Your task to perform on an android device: open chrome privacy settings Image 0: 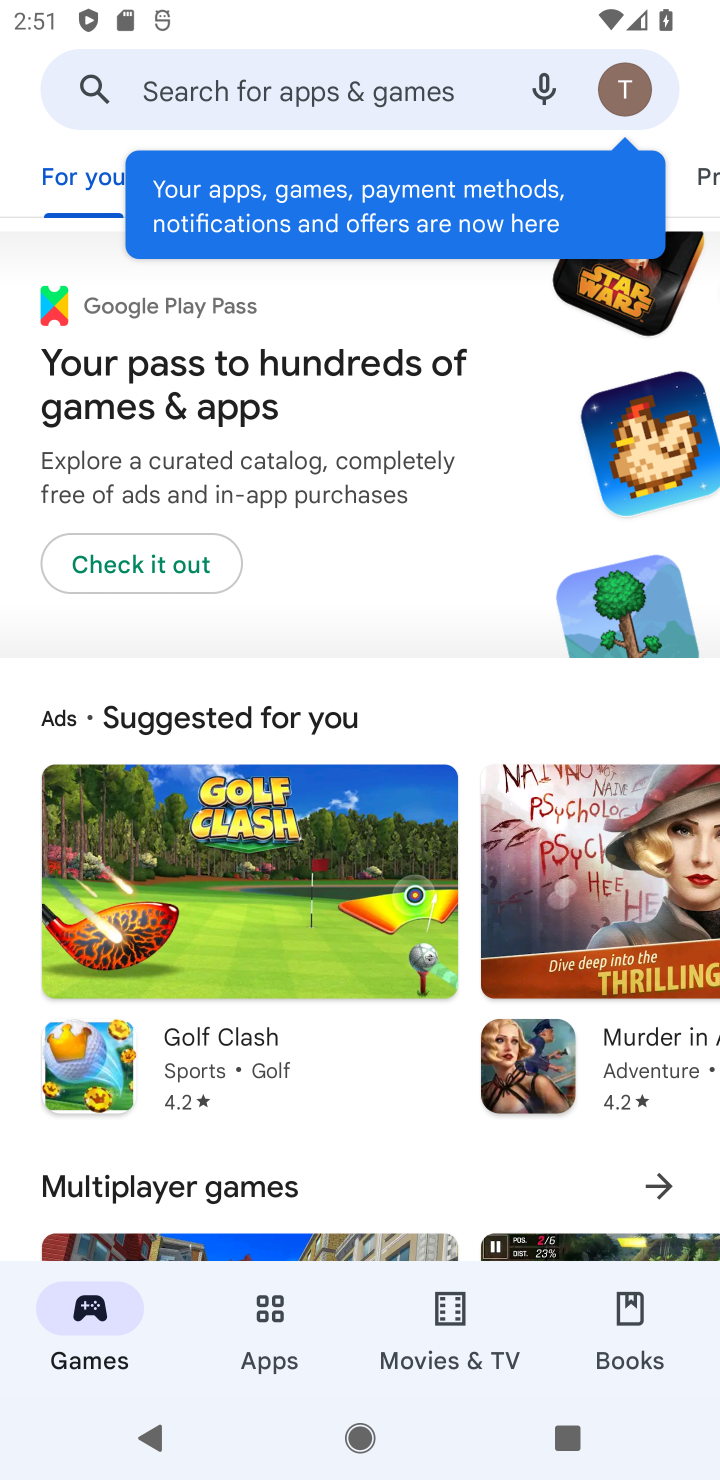
Step 0: press home button
Your task to perform on an android device: open chrome privacy settings Image 1: 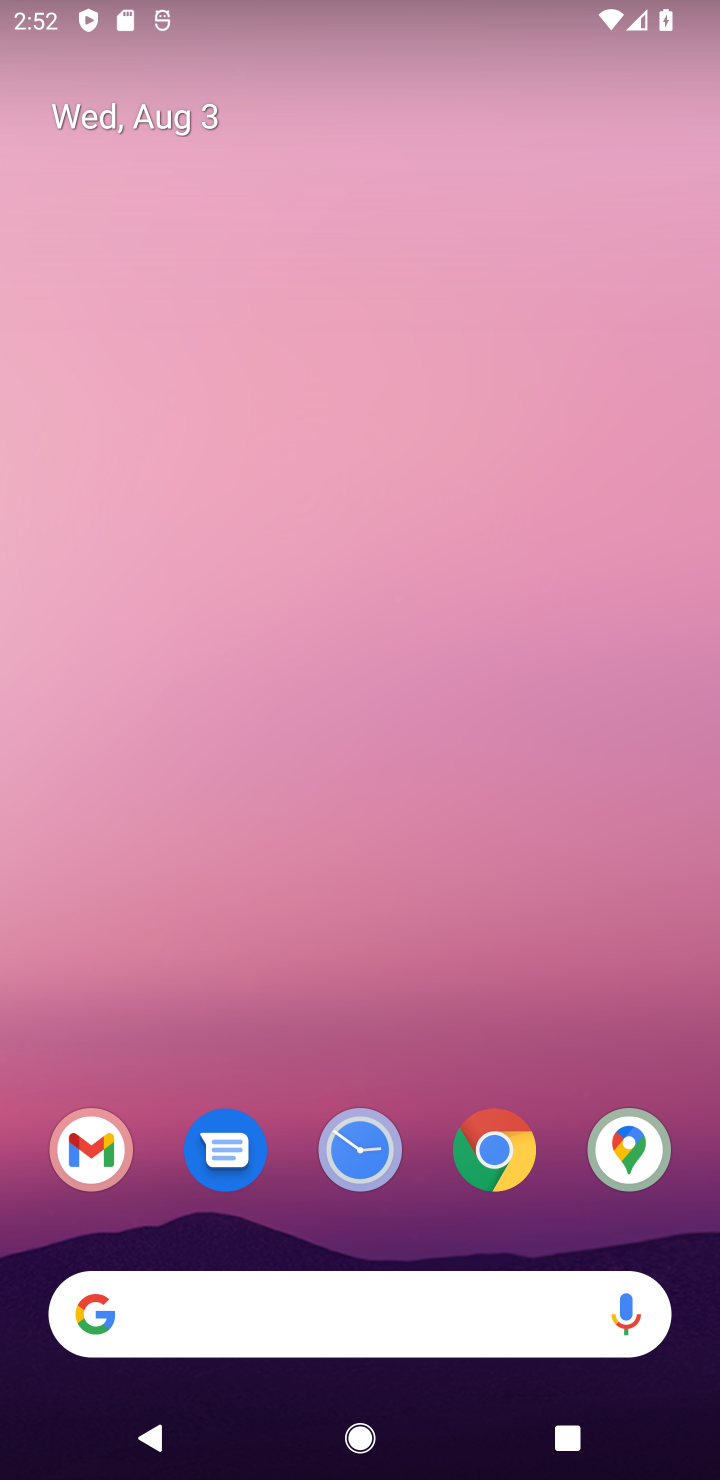
Step 1: click (505, 1148)
Your task to perform on an android device: open chrome privacy settings Image 2: 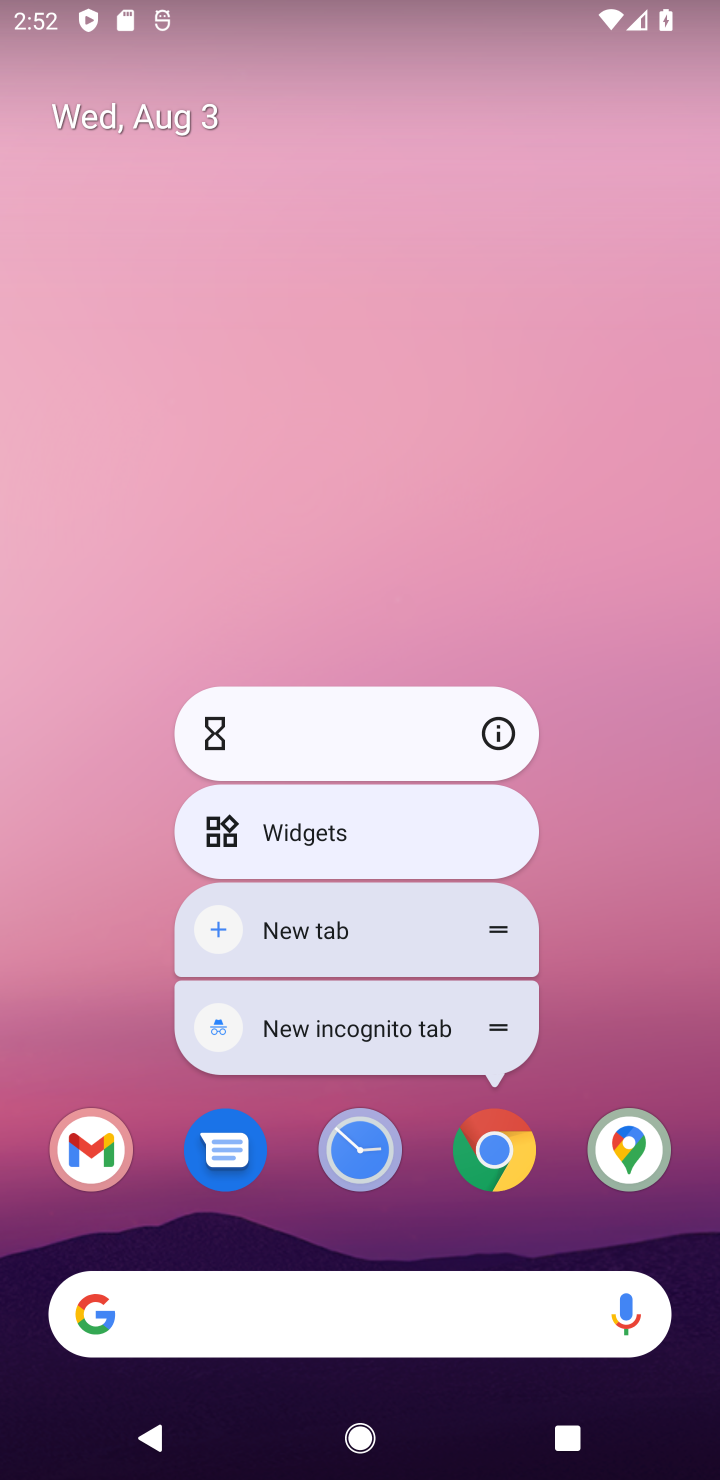
Step 2: click (504, 1155)
Your task to perform on an android device: open chrome privacy settings Image 3: 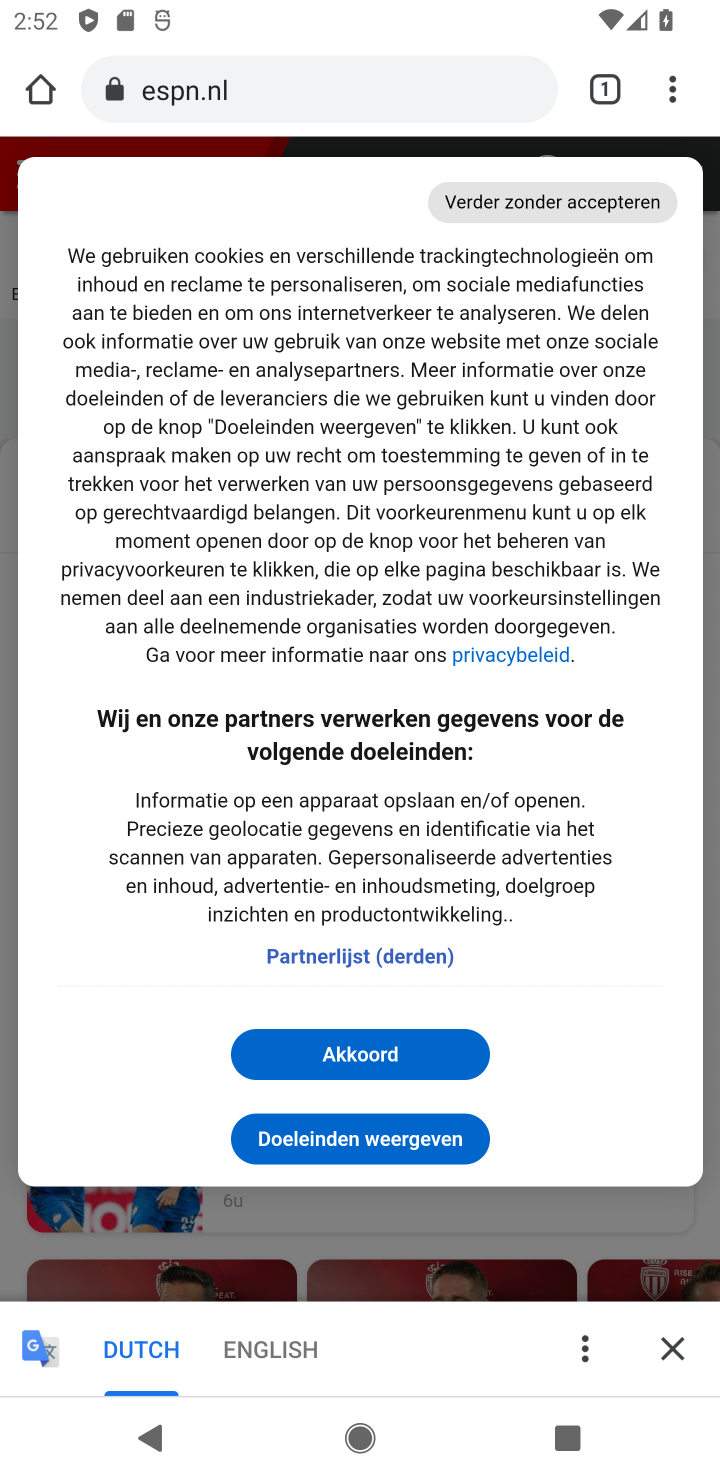
Step 3: drag from (674, 97) to (401, 1110)
Your task to perform on an android device: open chrome privacy settings Image 4: 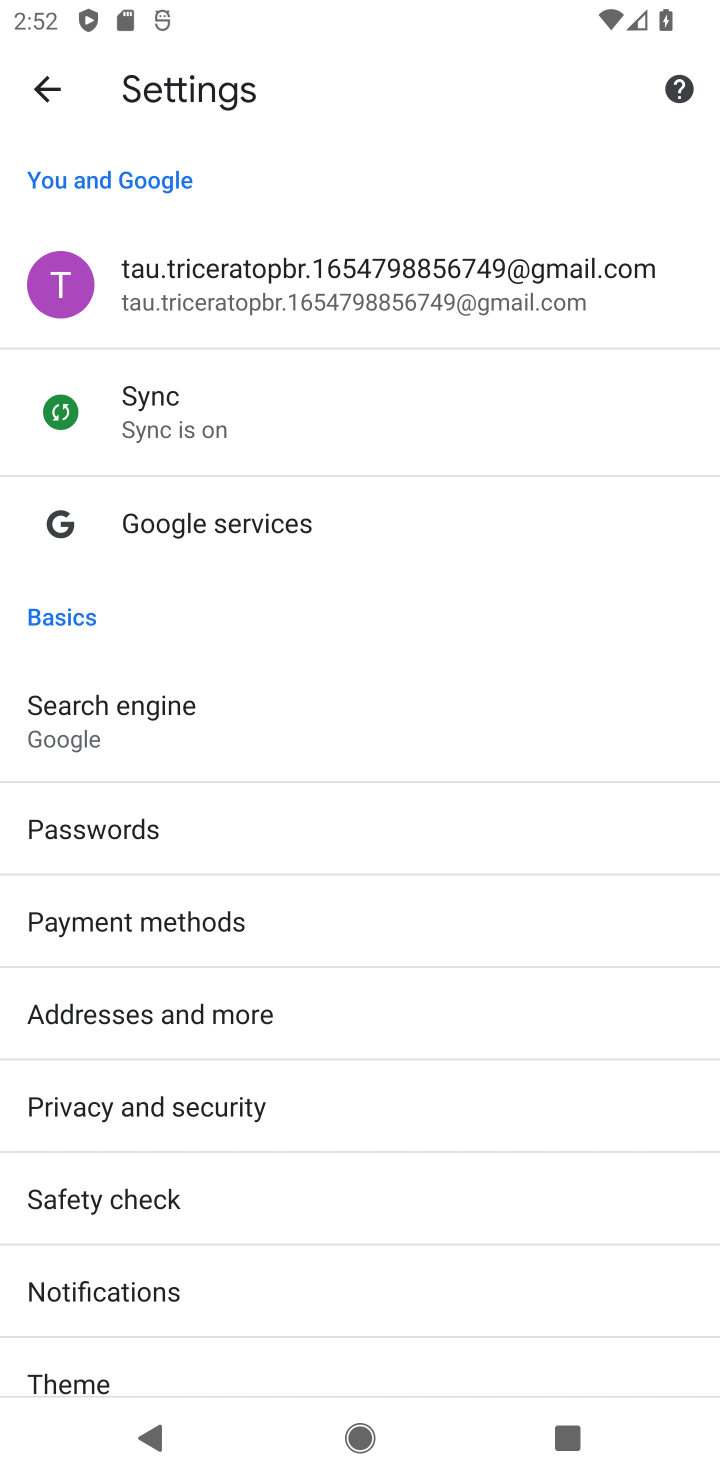
Step 4: click (168, 1077)
Your task to perform on an android device: open chrome privacy settings Image 5: 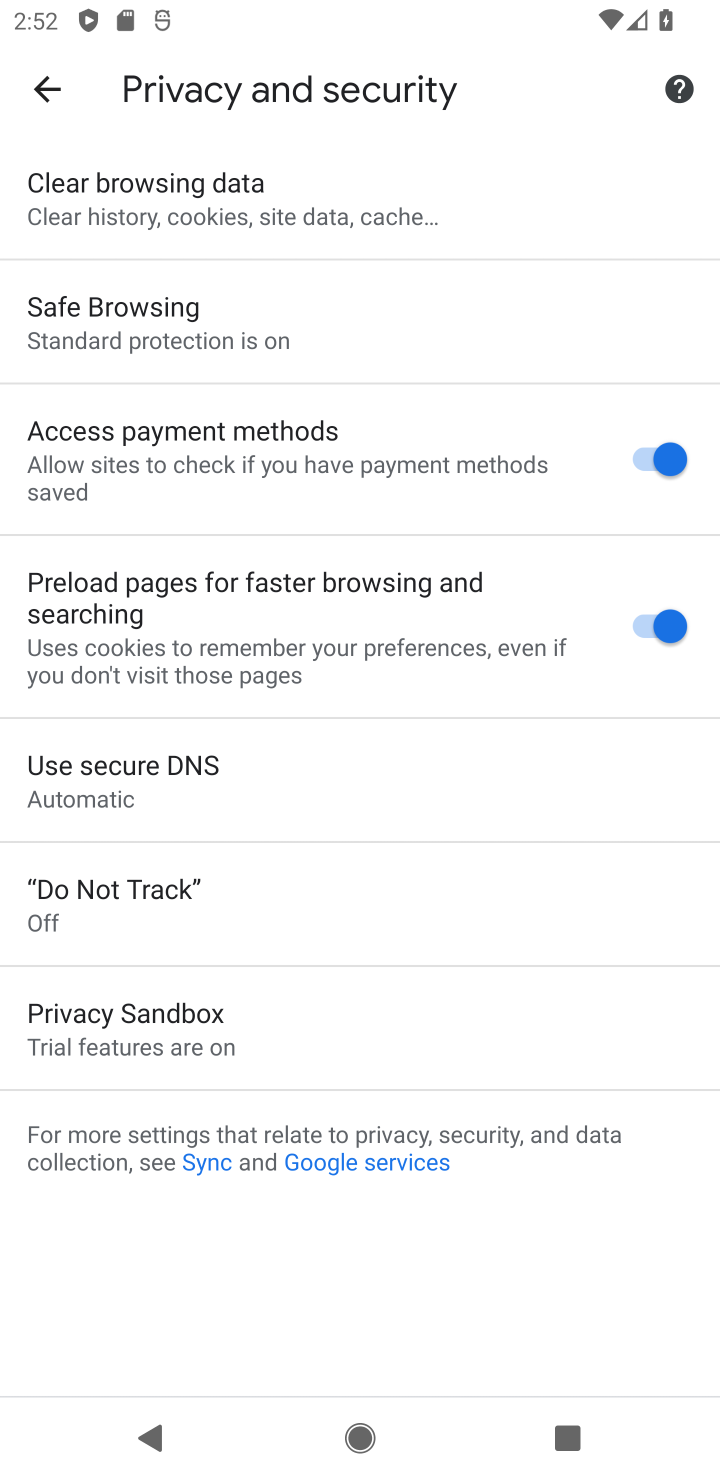
Step 5: task complete